Your task to perform on an android device: Go to ESPN.com Image 0: 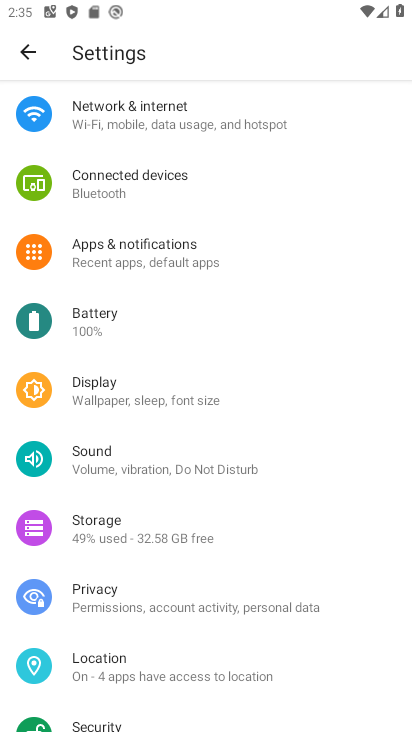
Step 0: press home button
Your task to perform on an android device: Go to ESPN.com Image 1: 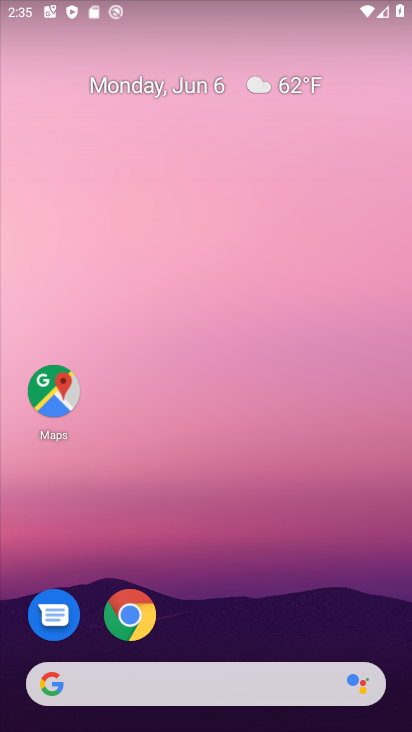
Step 1: drag from (280, 682) to (271, 34)
Your task to perform on an android device: Go to ESPN.com Image 2: 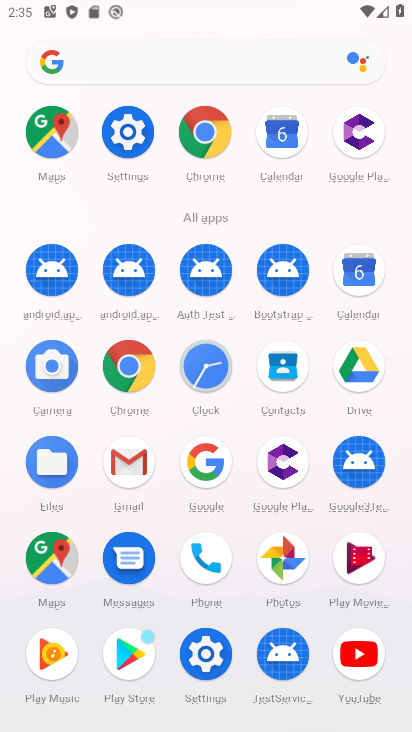
Step 2: click (130, 360)
Your task to perform on an android device: Go to ESPN.com Image 3: 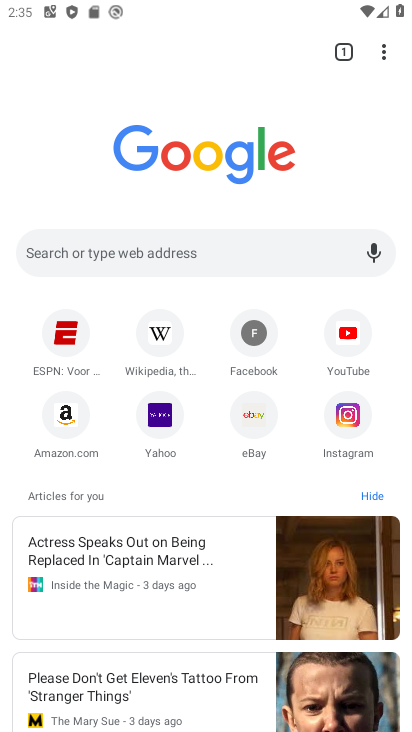
Step 3: click (70, 329)
Your task to perform on an android device: Go to ESPN.com Image 4: 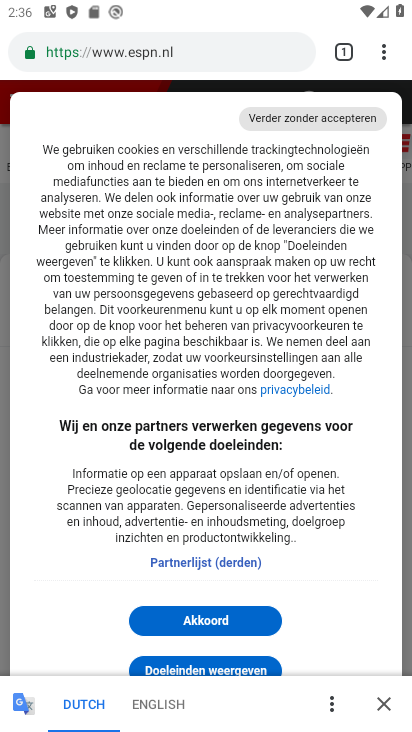
Step 4: task complete